Your task to perform on an android device: open wifi settings Image 0: 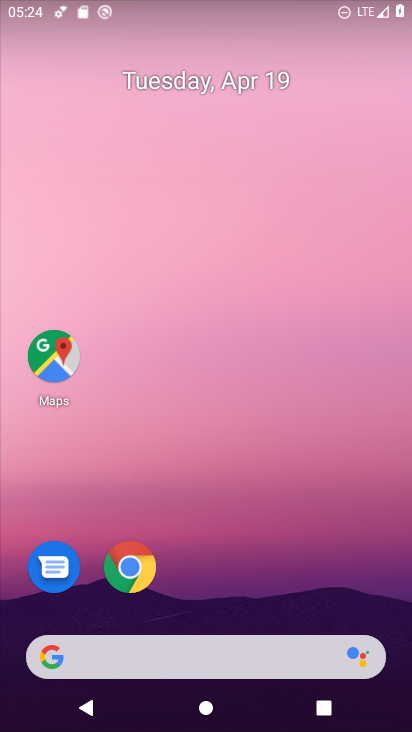
Step 0: drag from (324, 640) to (240, 59)
Your task to perform on an android device: open wifi settings Image 1: 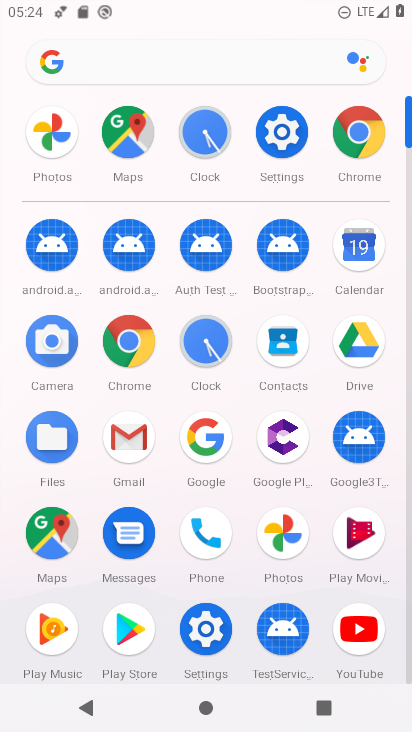
Step 1: click (204, 635)
Your task to perform on an android device: open wifi settings Image 2: 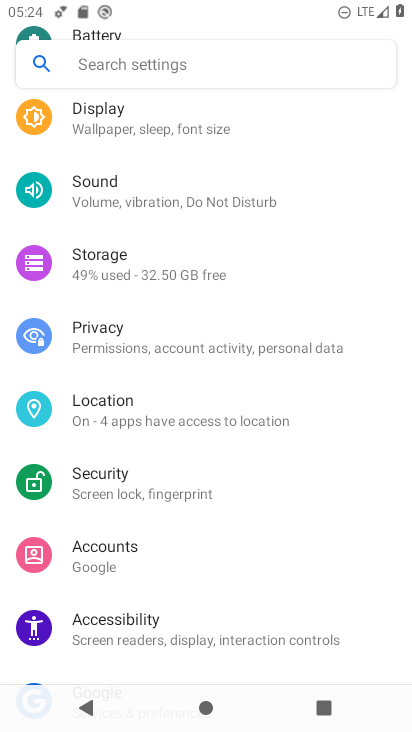
Step 2: drag from (239, 160) to (248, 660)
Your task to perform on an android device: open wifi settings Image 3: 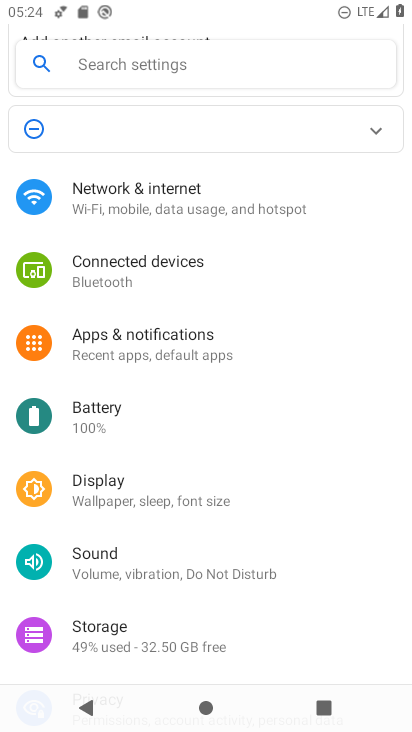
Step 3: click (200, 203)
Your task to perform on an android device: open wifi settings Image 4: 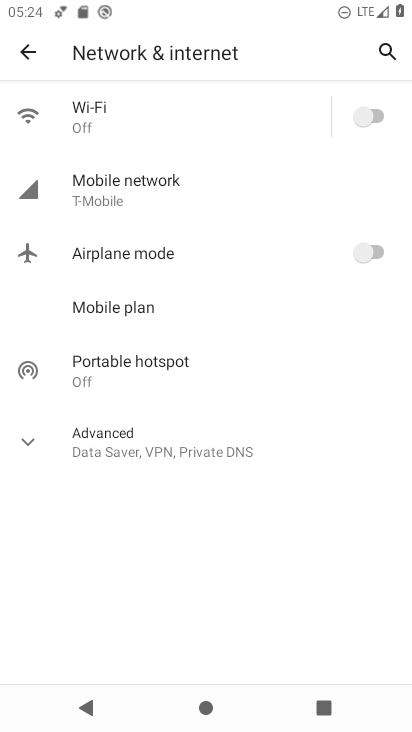
Step 4: click (132, 123)
Your task to perform on an android device: open wifi settings Image 5: 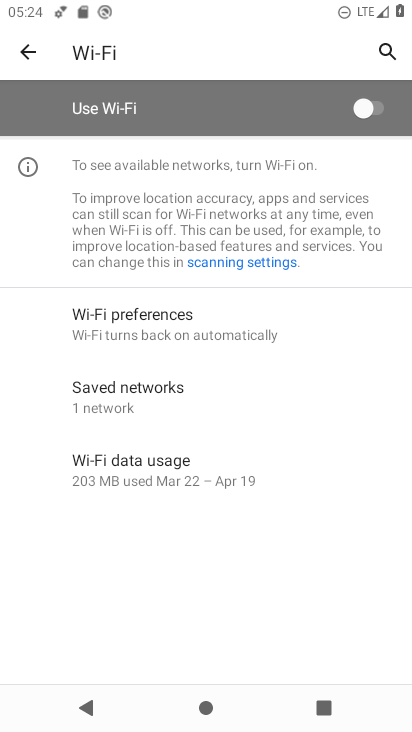
Step 5: task complete